Your task to perform on an android device: turn off notifications settings in the gmail app Image 0: 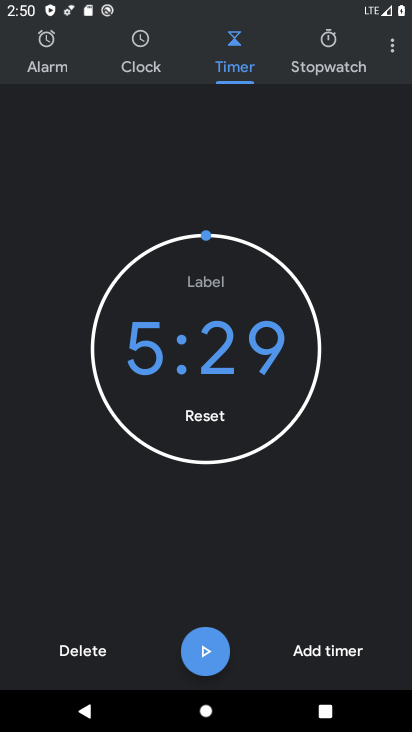
Step 0: click (65, 380)
Your task to perform on an android device: turn off notifications settings in the gmail app Image 1: 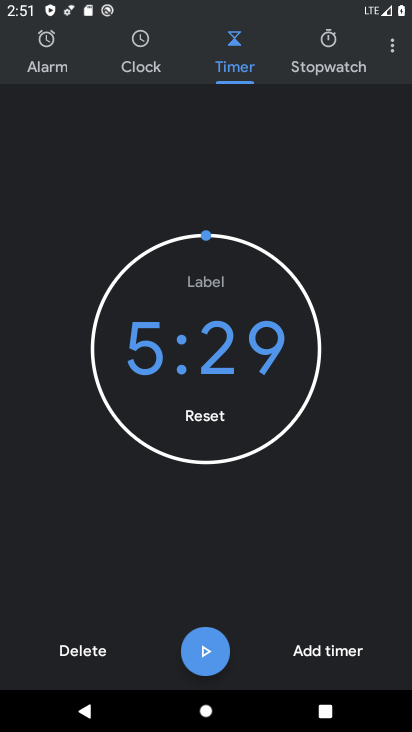
Step 1: press home button
Your task to perform on an android device: turn off notifications settings in the gmail app Image 2: 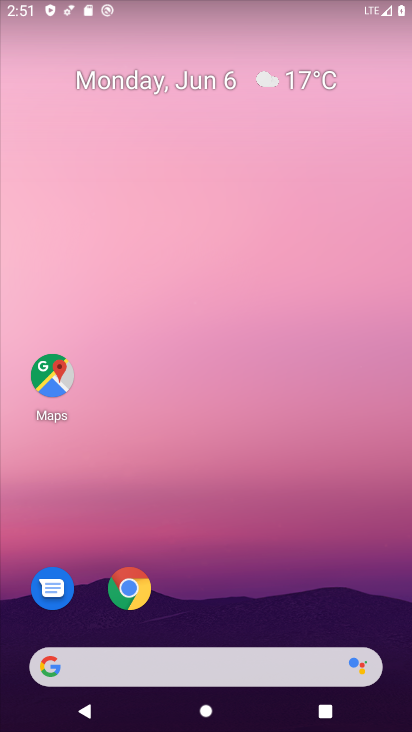
Step 2: drag from (178, 643) to (195, 184)
Your task to perform on an android device: turn off notifications settings in the gmail app Image 3: 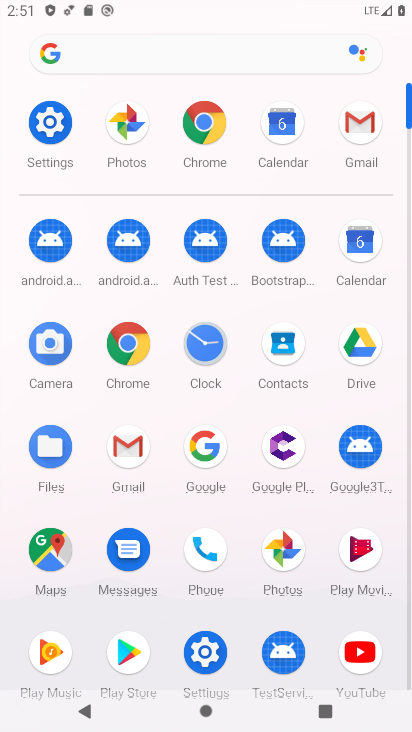
Step 3: click (141, 456)
Your task to perform on an android device: turn off notifications settings in the gmail app Image 4: 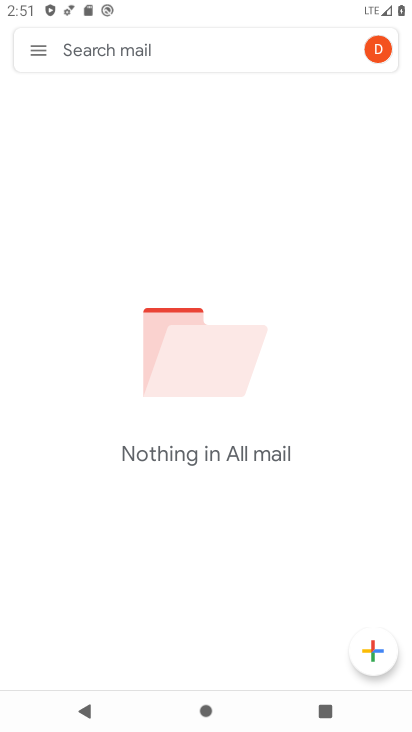
Step 4: click (36, 54)
Your task to perform on an android device: turn off notifications settings in the gmail app Image 5: 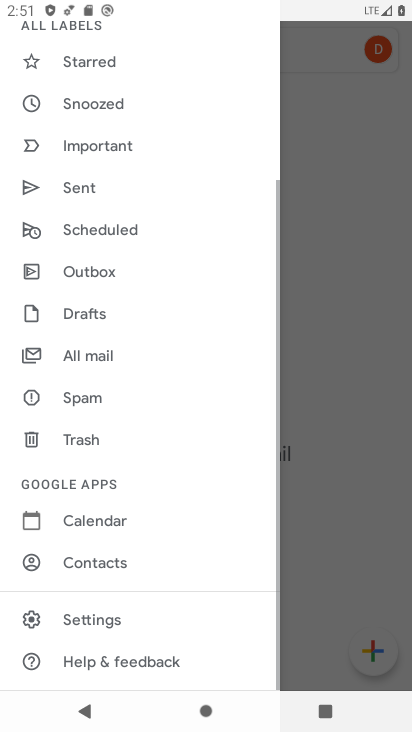
Step 5: click (123, 620)
Your task to perform on an android device: turn off notifications settings in the gmail app Image 6: 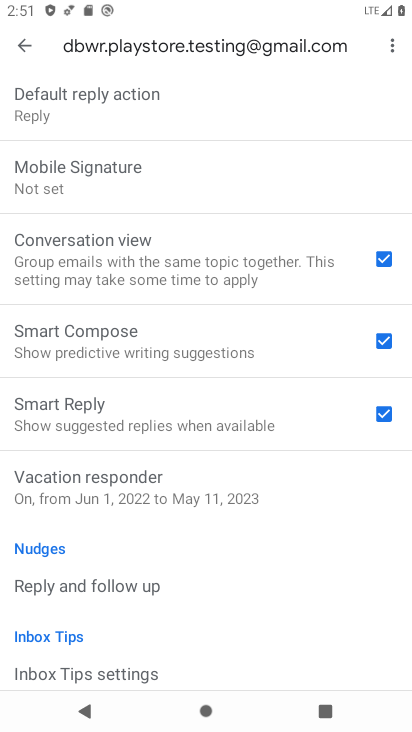
Step 6: drag from (167, 128) to (178, 622)
Your task to perform on an android device: turn off notifications settings in the gmail app Image 7: 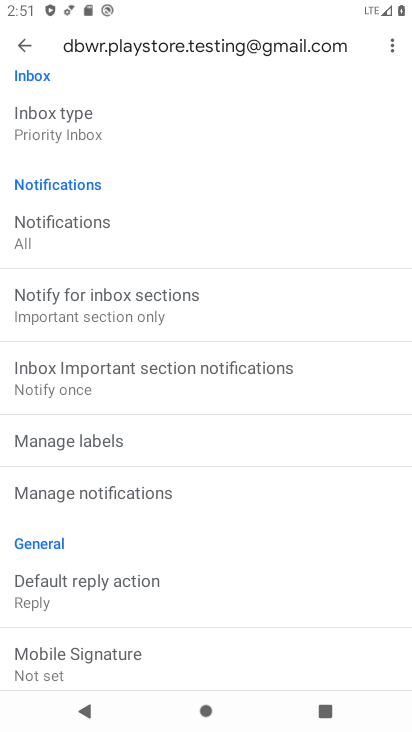
Step 7: click (132, 484)
Your task to perform on an android device: turn off notifications settings in the gmail app Image 8: 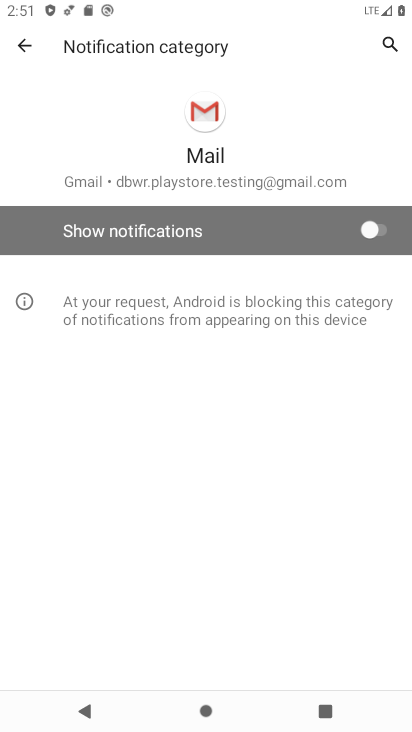
Step 8: task complete